Your task to perform on an android device: Open notification settings Image 0: 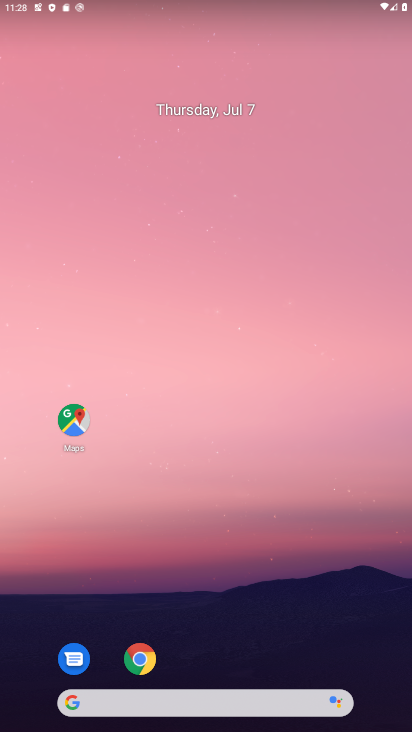
Step 0: drag from (237, 2) to (311, 504)
Your task to perform on an android device: Open notification settings Image 1: 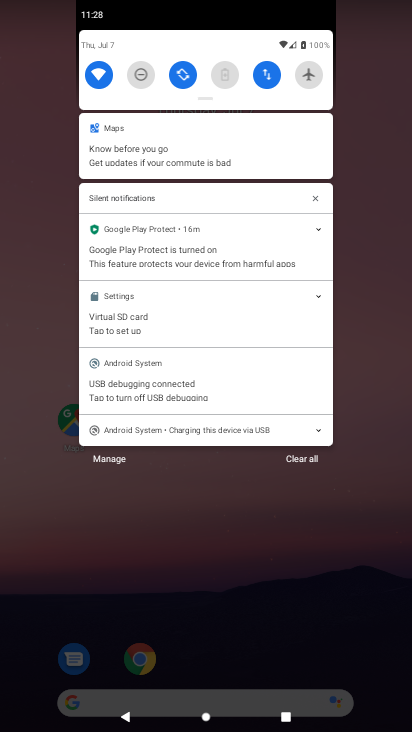
Step 1: drag from (198, 40) to (213, 434)
Your task to perform on an android device: Open notification settings Image 2: 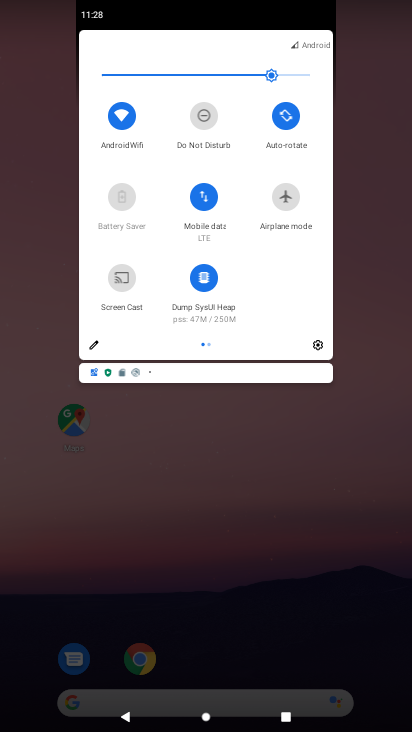
Step 2: click (319, 339)
Your task to perform on an android device: Open notification settings Image 3: 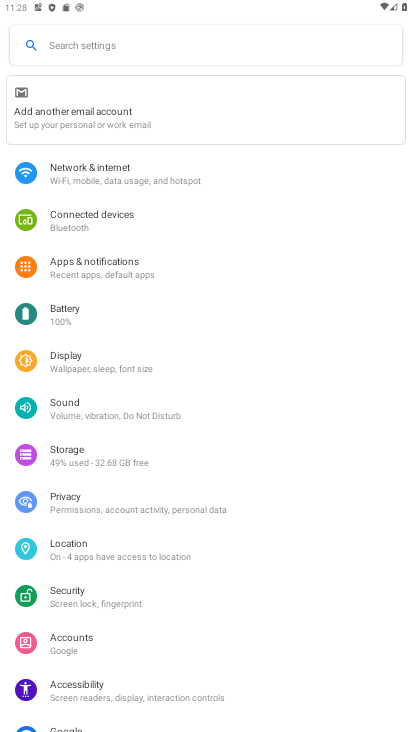
Step 3: click (140, 267)
Your task to perform on an android device: Open notification settings Image 4: 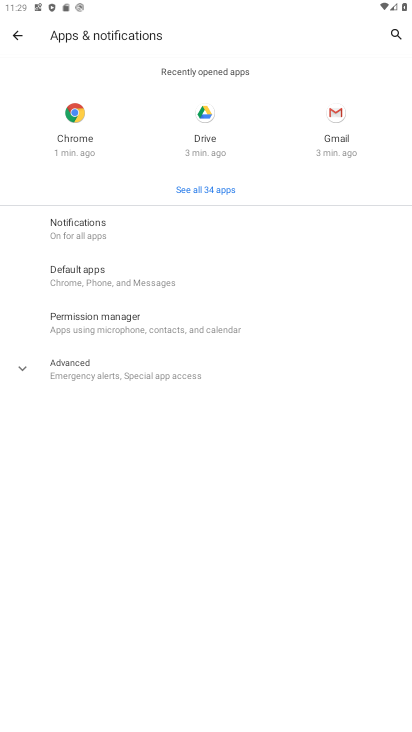
Step 4: task complete